Your task to perform on an android device: Open sound settings Image 0: 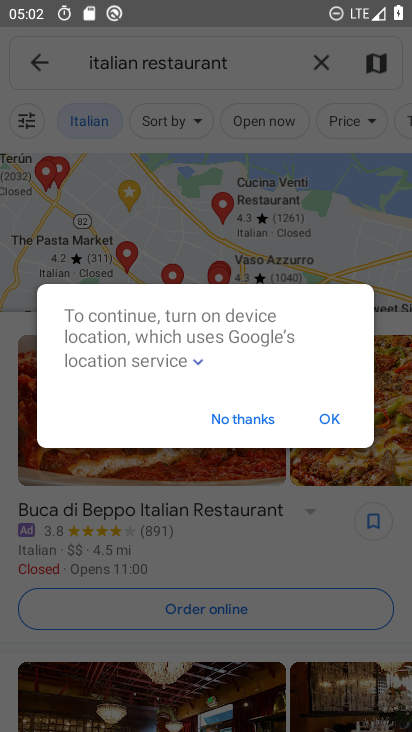
Step 0: press home button
Your task to perform on an android device: Open sound settings Image 1: 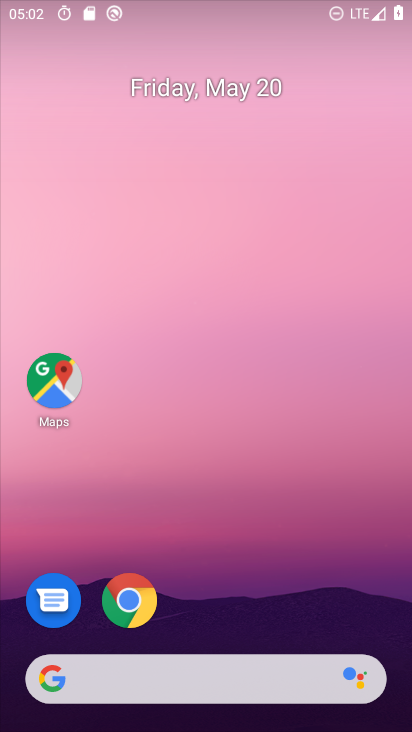
Step 1: drag from (188, 527) to (216, 58)
Your task to perform on an android device: Open sound settings Image 2: 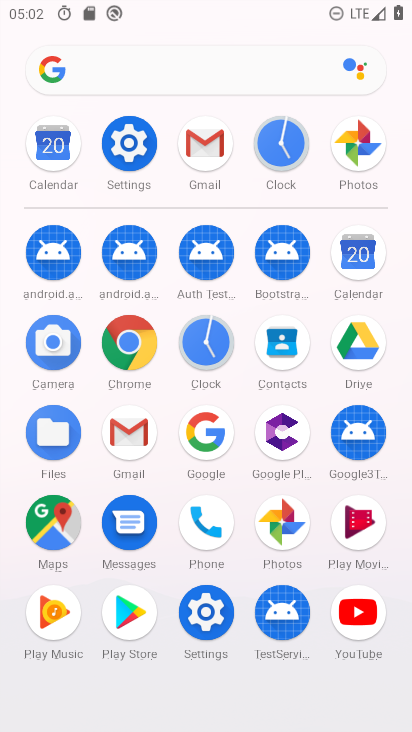
Step 2: click (168, 135)
Your task to perform on an android device: Open sound settings Image 3: 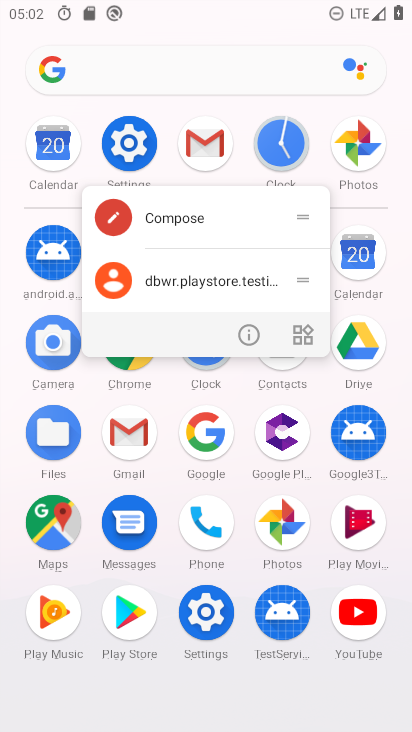
Step 3: click (120, 154)
Your task to perform on an android device: Open sound settings Image 4: 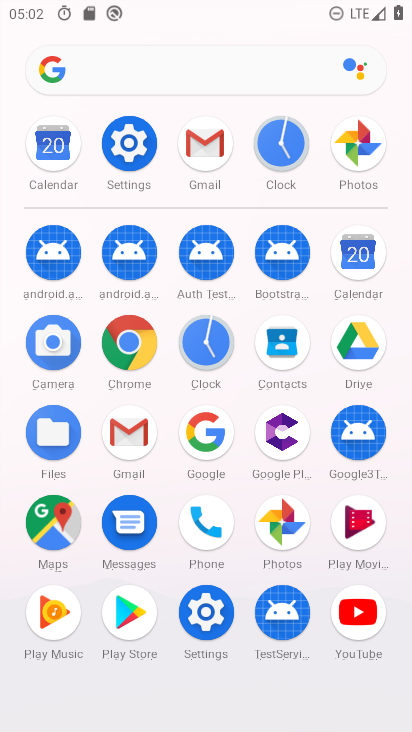
Step 4: click (135, 146)
Your task to perform on an android device: Open sound settings Image 5: 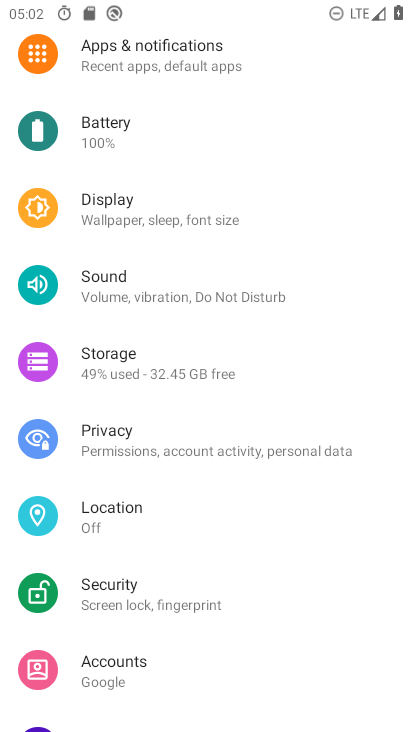
Step 5: click (144, 292)
Your task to perform on an android device: Open sound settings Image 6: 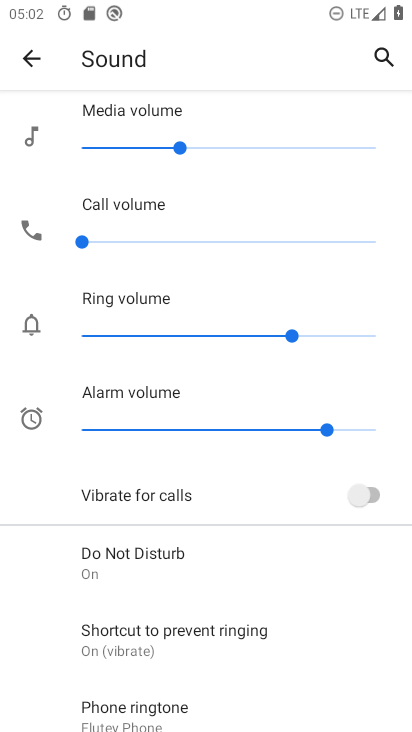
Step 6: task complete